Your task to perform on an android device: open the mobile data screen to see how much data has been used Image 0: 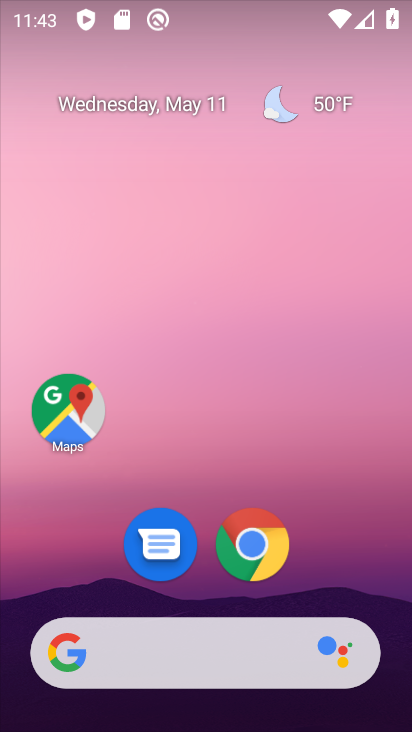
Step 0: drag from (199, 638) to (127, 139)
Your task to perform on an android device: open the mobile data screen to see how much data has been used Image 1: 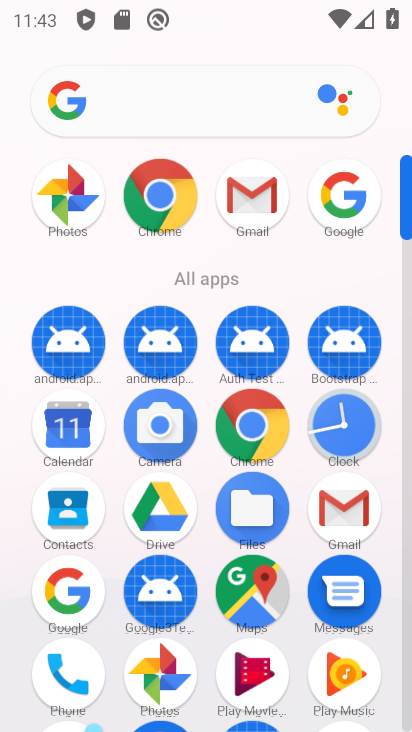
Step 1: drag from (210, 600) to (149, 81)
Your task to perform on an android device: open the mobile data screen to see how much data has been used Image 2: 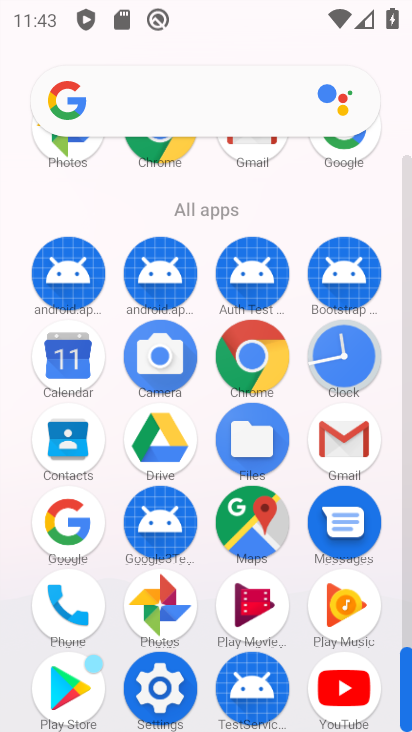
Step 2: click (179, 696)
Your task to perform on an android device: open the mobile data screen to see how much data has been used Image 3: 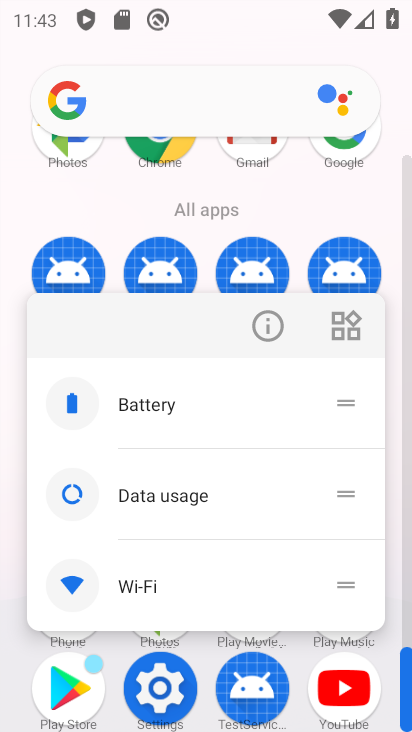
Step 3: click (179, 696)
Your task to perform on an android device: open the mobile data screen to see how much data has been used Image 4: 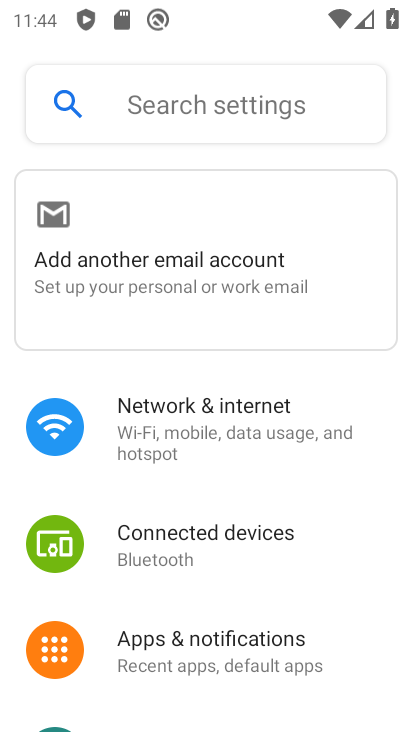
Step 4: drag from (257, 606) to (225, 190)
Your task to perform on an android device: open the mobile data screen to see how much data has been used Image 5: 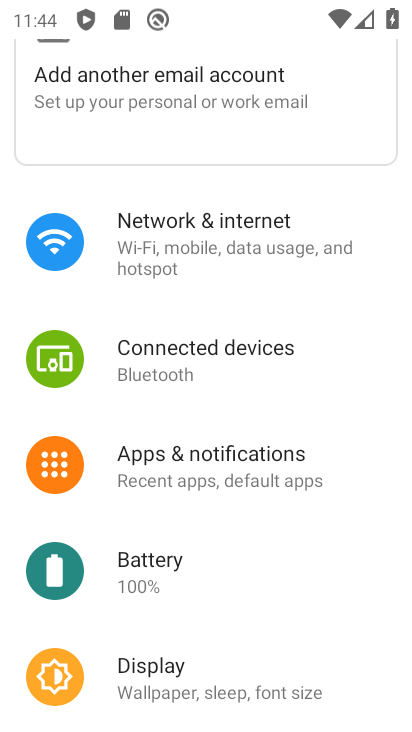
Step 5: click (150, 226)
Your task to perform on an android device: open the mobile data screen to see how much data has been used Image 6: 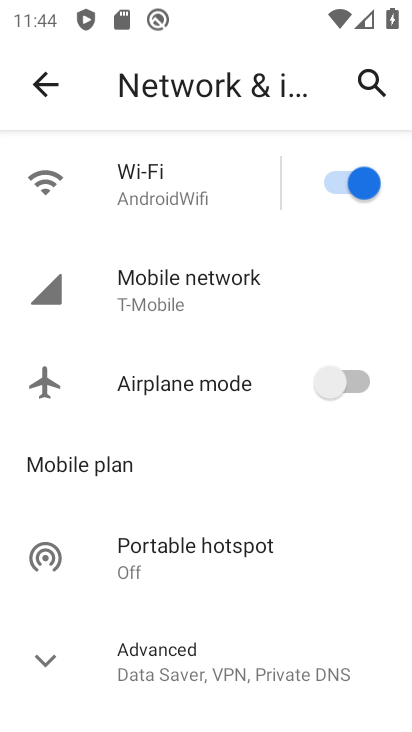
Step 6: click (168, 273)
Your task to perform on an android device: open the mobile data screen to see how much data has been used Image 7: 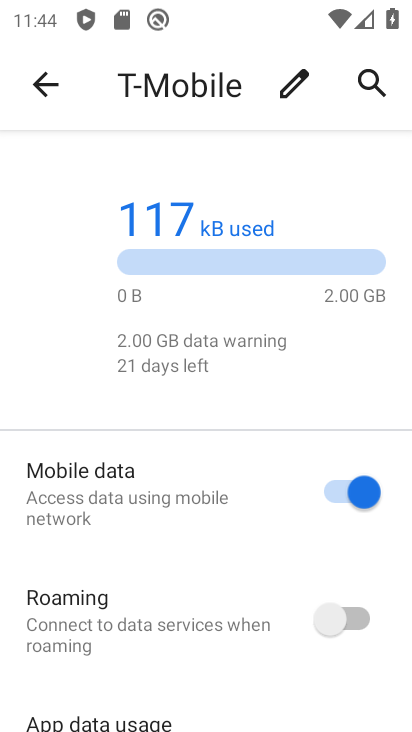
Step 7: task complete